Your task to perform on an android device: Go to Amazon Image 0: 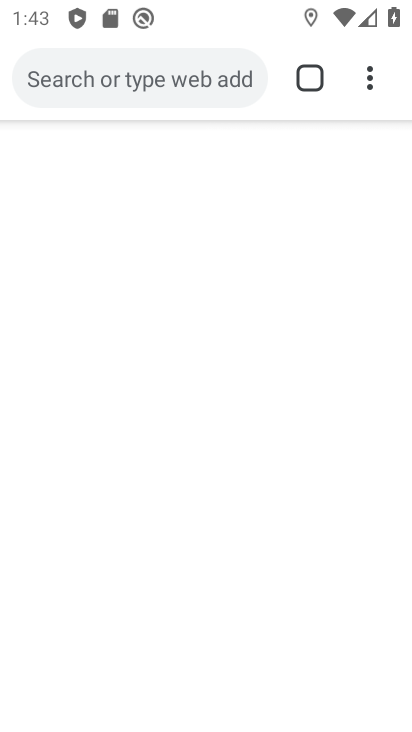
Step 0: click (267, 571)
Your task to perform on an android device: Go to Amazon Image 1: 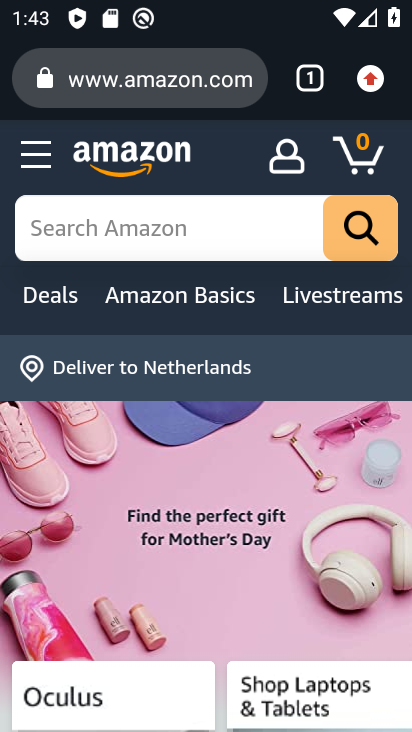
Step 1: task complete